Your task to perform on an android device: remove spam from my inbox in the gmail app Image 0: 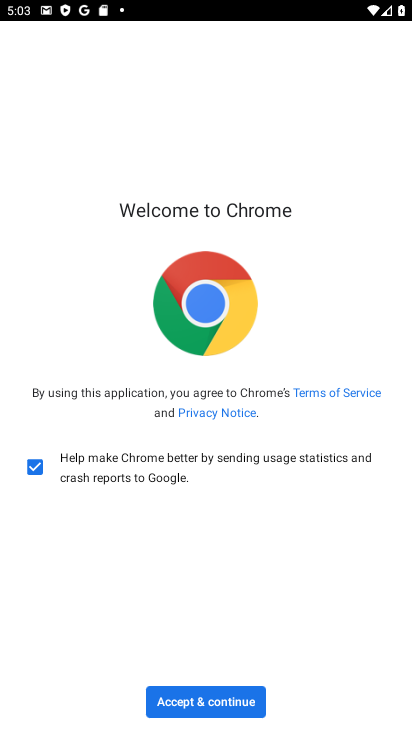
Step 0: press home button
Your task to perform on an android device: remove spam from my inbox in the gmail app Image 1: 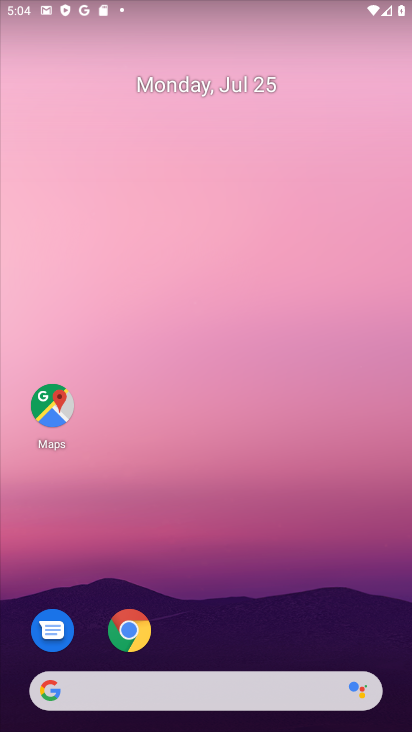
Step 1: drag from (219, 641) to (291, 15)
Your task to perform on an android device: remove spam from my inbox in the gmail app Image 2: 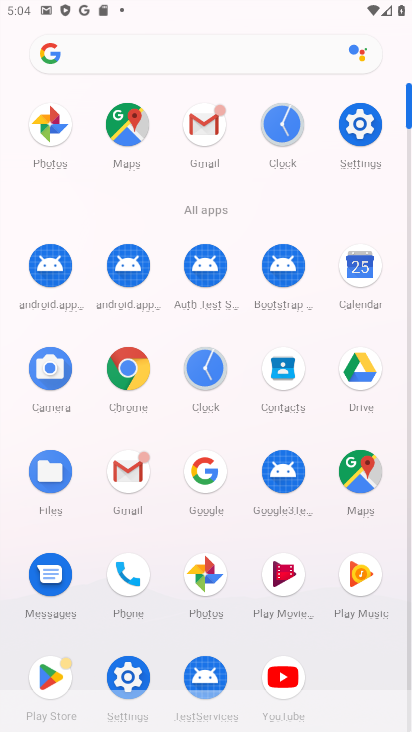
Step 2: click (136, 462)
Your task to perform on an android device: remove spam from my inbox in the gmail app Image 3: 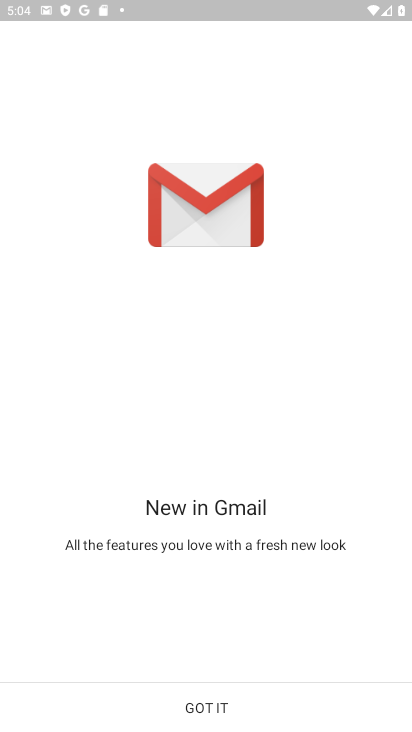
Step 3: click (201, 715)
Your task to perform on an android device: remove spam from my inbox in the gmail app Image 4: 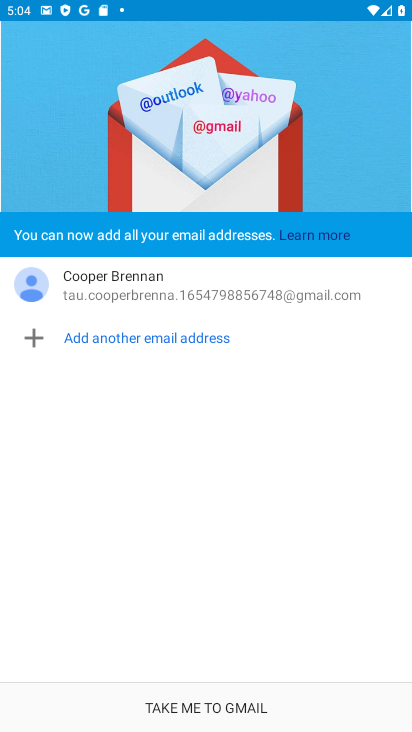
Step 4: click (212, 704)
Your task to perform on an android device: remove spam from my inbox in the gmail app Image 5: 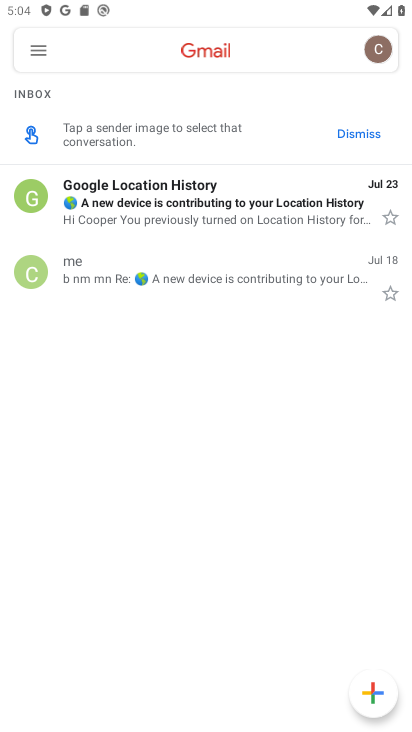
Step 5: click (36, 48)
Your task to perform on an android device: remove spam from my inbox in the gmail app Image 6: 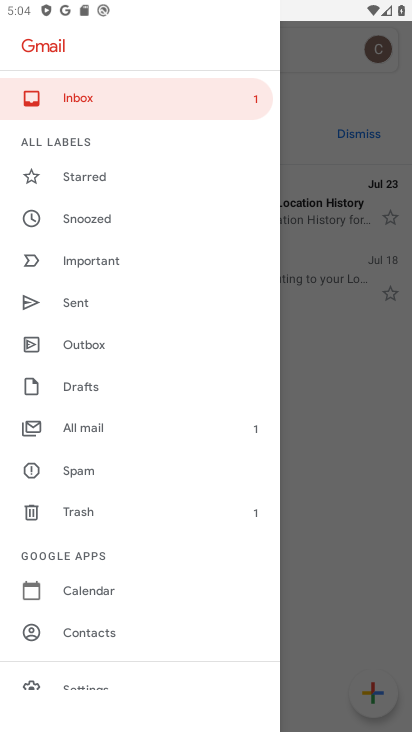
Step 6: click (86, 464)
Your task to perform on an android device: remove spam from my inbox in the gmail app Image 7: 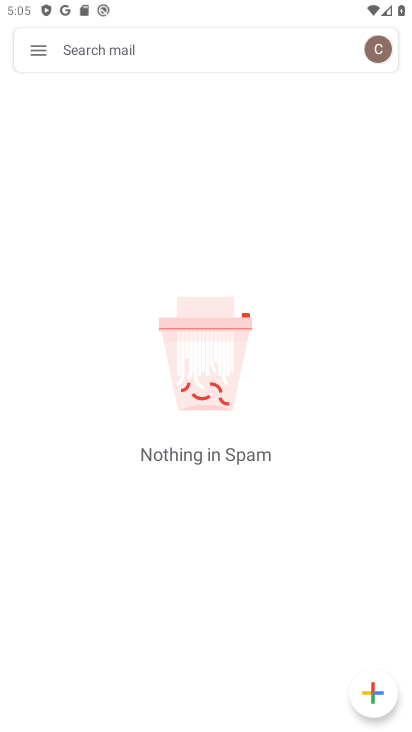
Step 7: task complete